Your task to perform on an android device: Search for the new Nintendo switch on Walmart. Image 0: 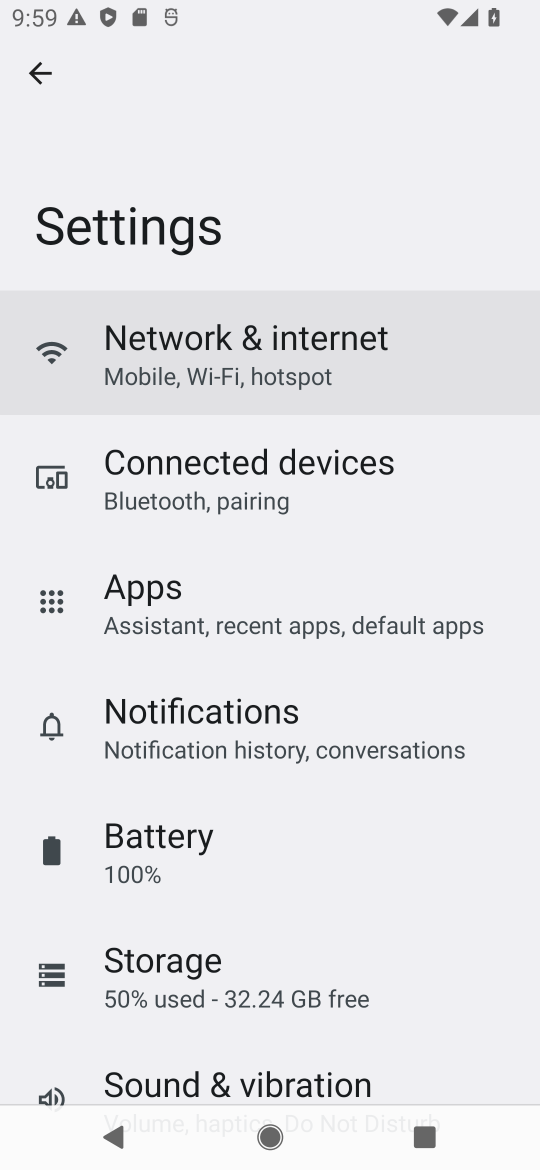
Step 0: press home button
Your task to perform on an android device: Search for the new Nintendo switch on Walmart. Image 1: 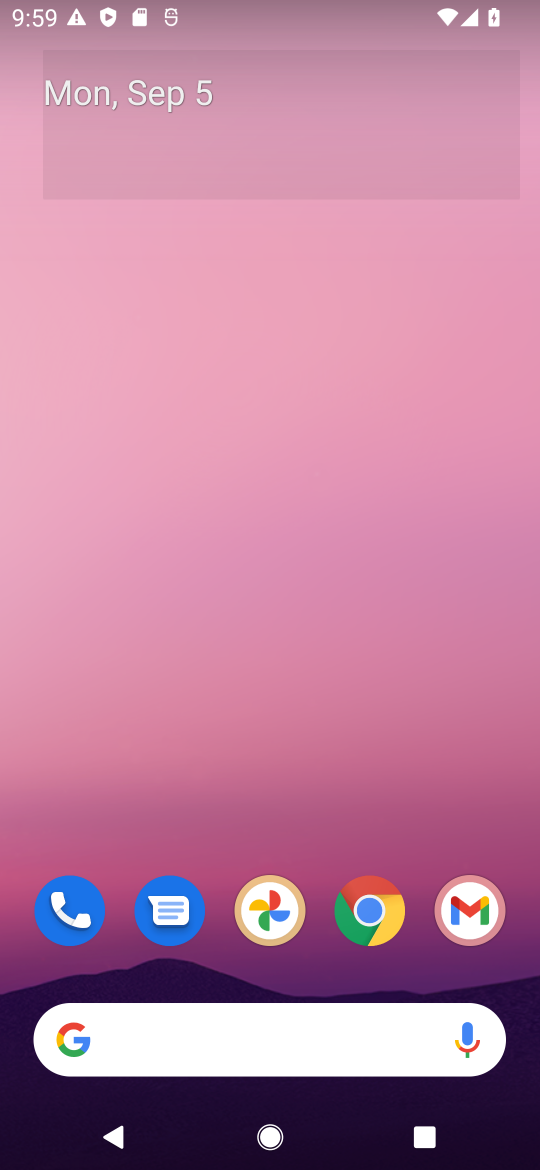
Step 1: click (379, 932)
Your task to perform on an android device: Search for the new Nintendo switch on Walmart. Image 2: 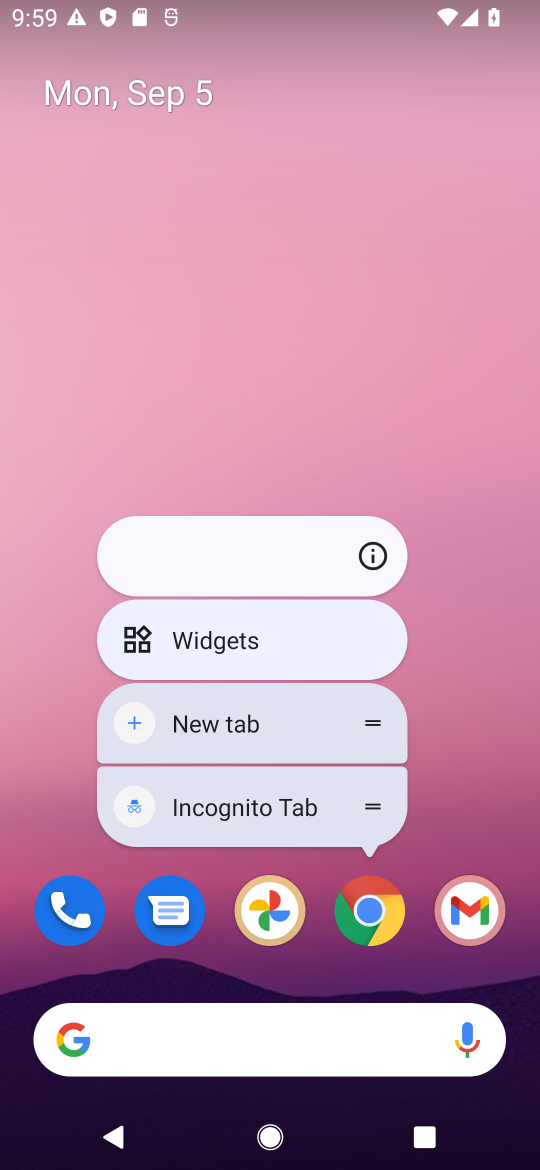
Step 2: click (366, 920)
Your task to perform on an android device: Search for the new Nintendo switch on Walmart. Image 3: 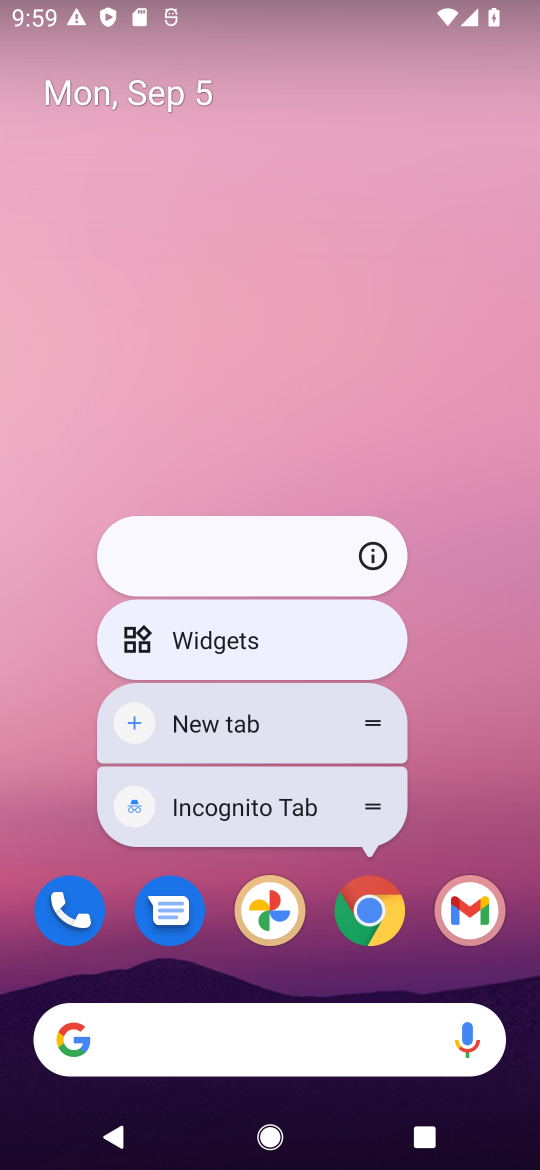
Step 3: click (378, 899)
Your task to perform on an android device: Search for the new Nintendo switch on Walmart. Image 4: 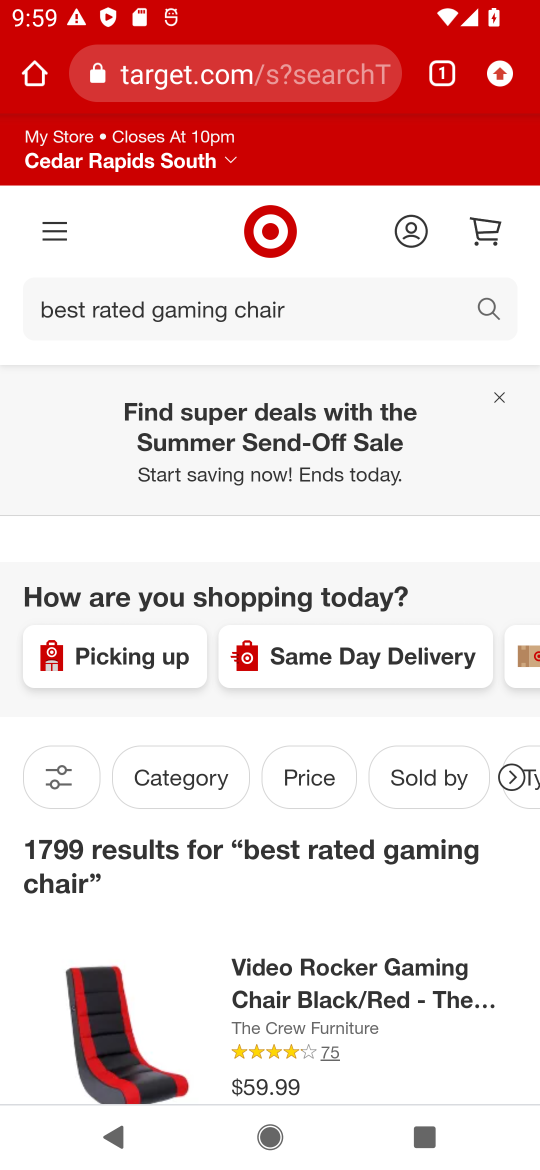
Step 4: click (288, 63)
Your task to perform on an android device: Search for the new Nintendo switch on Walmart. Image 5: 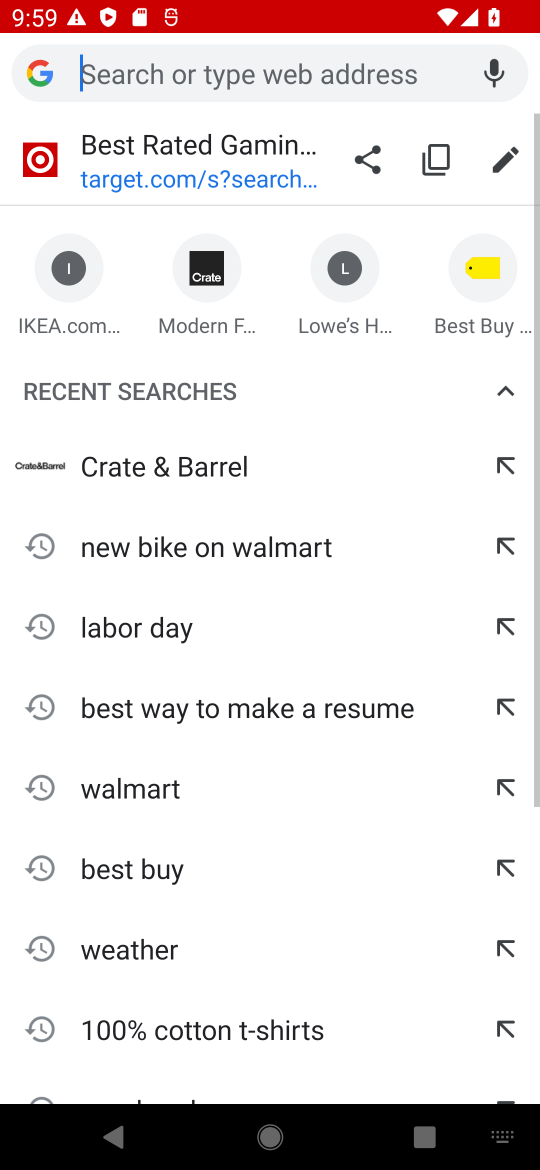
Step 5: type "walmart"
Your task to perform on an android device: Search for the new Nintendo switch on Walmart. Image 6: 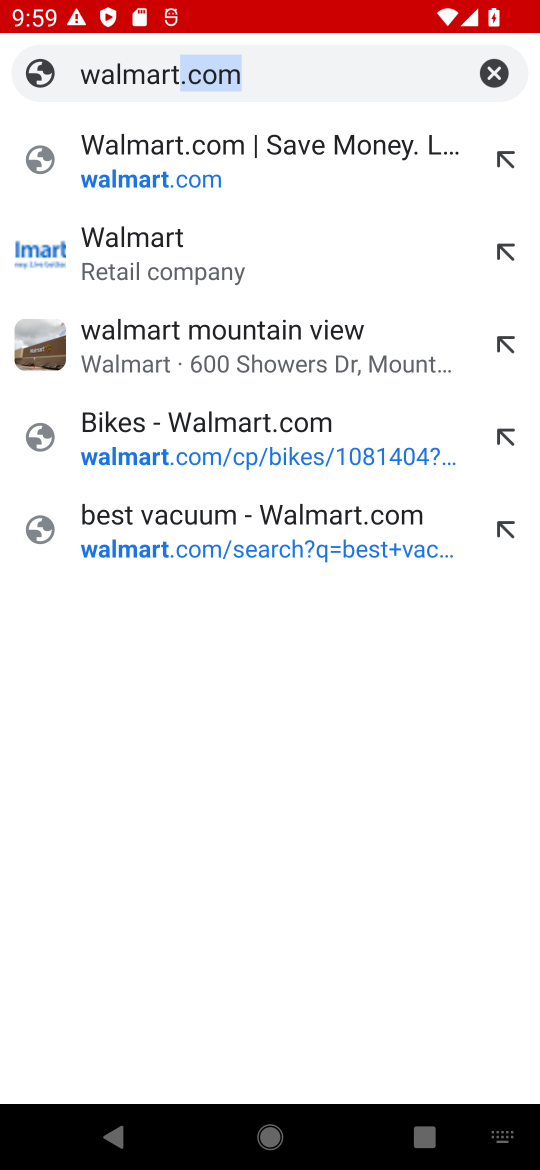
Step 6: click (258, 137)
Your task to perform on an android device: Search for the new Nintendo switch on Walmart. Image 7: 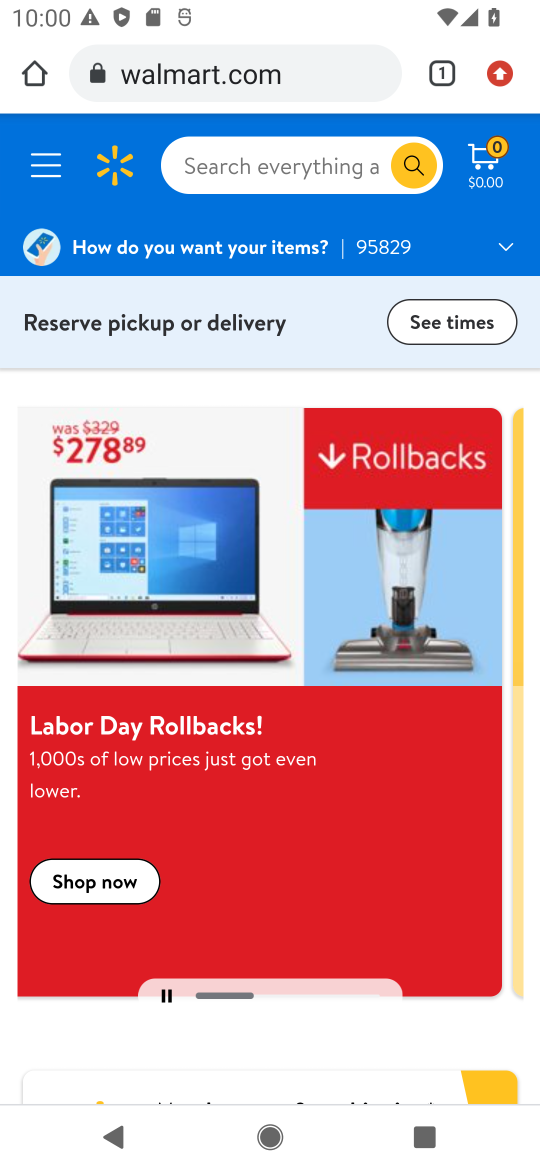
Step 7: click (266, 167)
Your task to perform on an android device: Search for the new Nintendo switch on Walmart. Image 8: 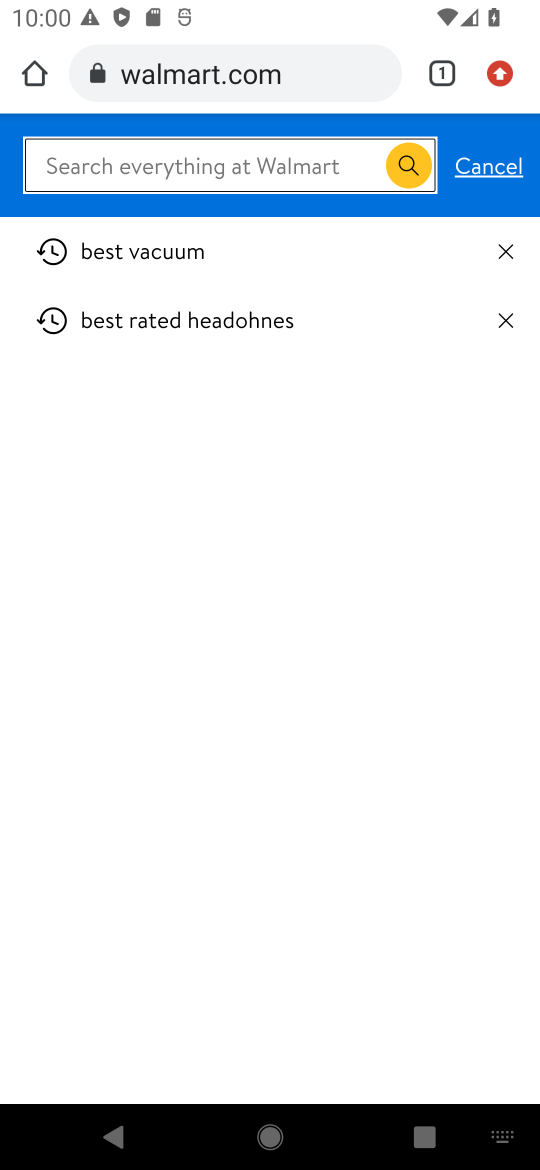
Step 8: type "nintendo switch"
Your task to perform on an android device: Search for the new Nintendo switch on Walmart. Image 9: 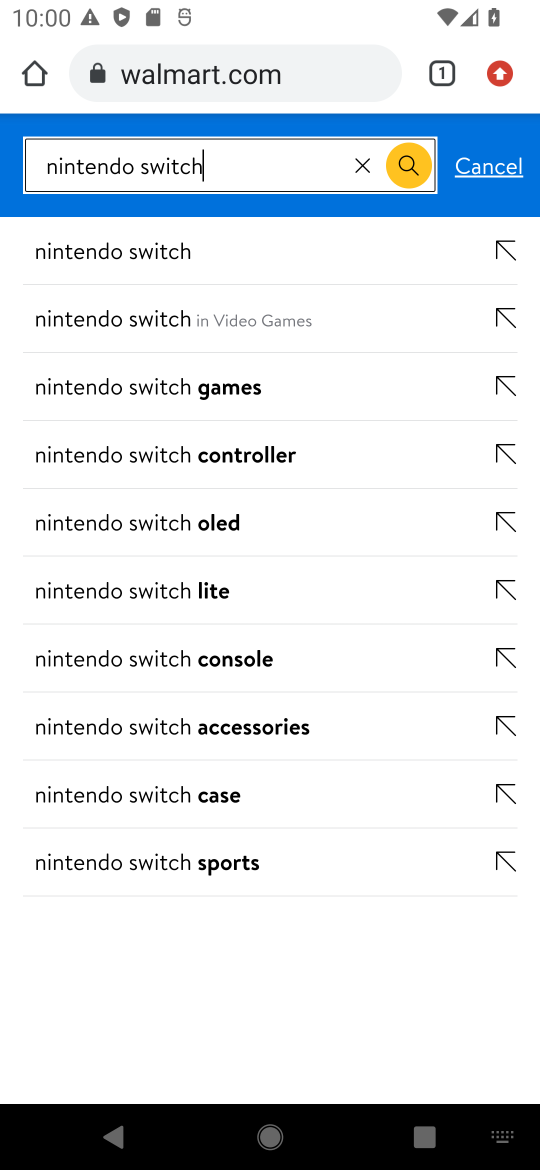
Step 9: click (272, 247)
Your task to perform on an android device: Search for the new Nintendo switch on Walmart. Image 10: 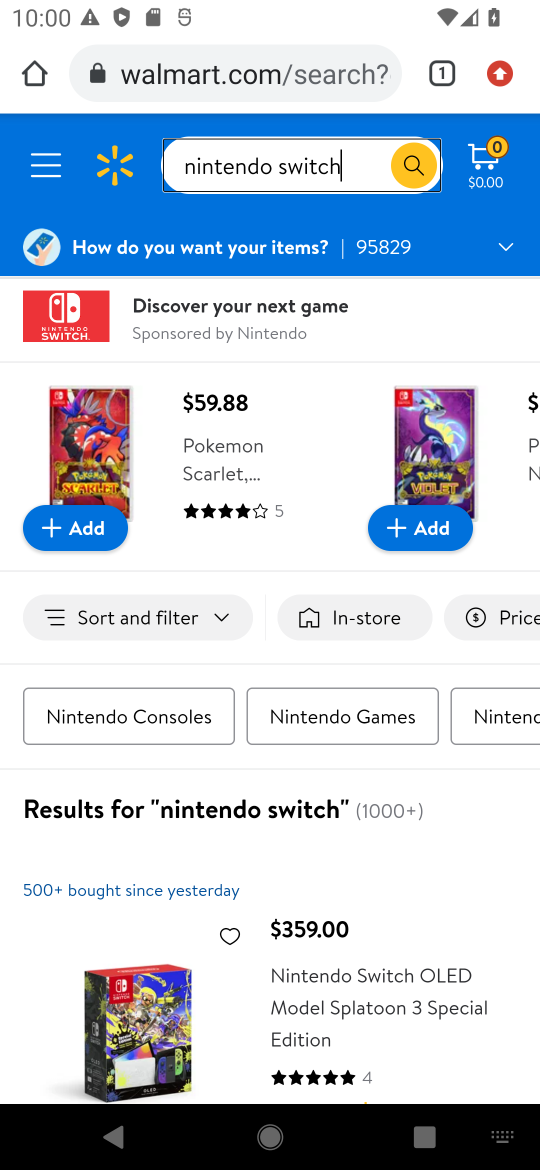
Step 10: press enter
Your task to perform on an android device: Search for the new Nintendo switch on Walmart. Image 11: 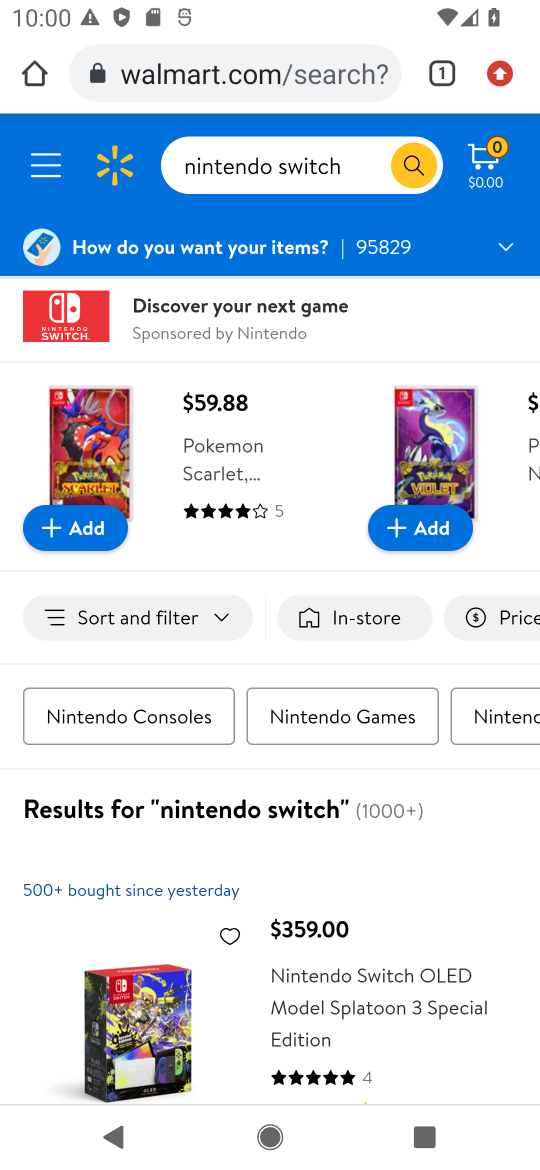
Step 11: task complete